Your task to perform on an android device: turn on sleep mode Image 0: 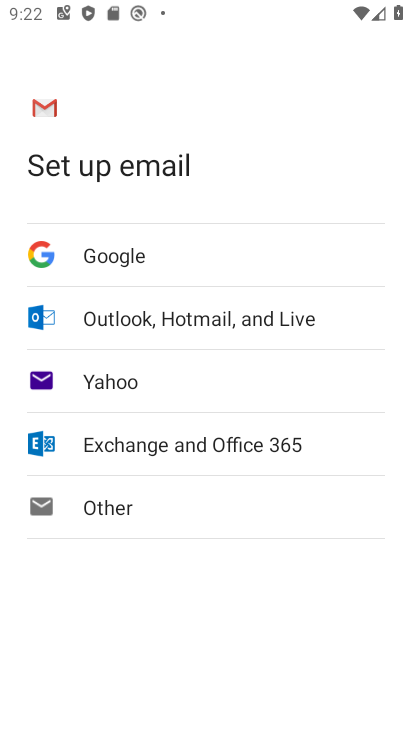
Step 0: press home button
Your task to perform on an android device: turn on sleep mode Image 1: 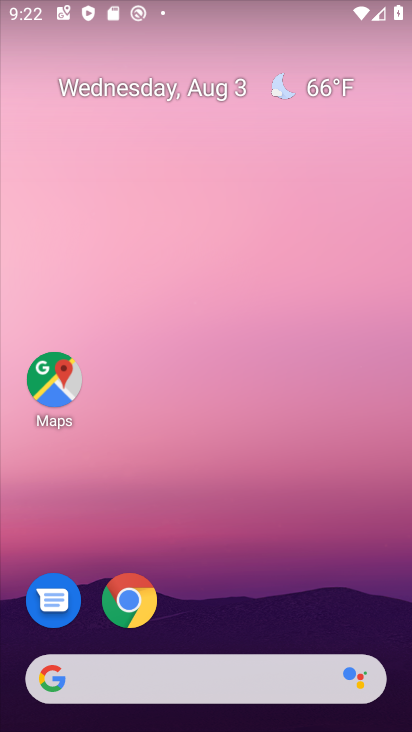
Step 1: drag from (173, 274) to (132, 0)
Your task to perform on an android device: turn on sleep mode Image 2: 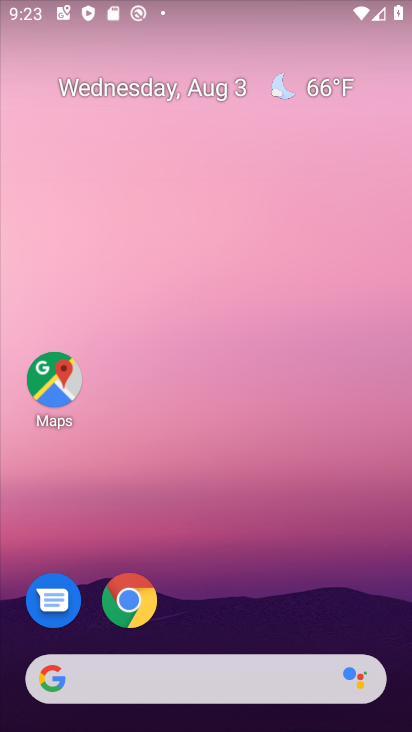
Step 2: drag from (220, 615) to (157, 0)
Your task to perform on an android device: turn on sleep mode Image 3: 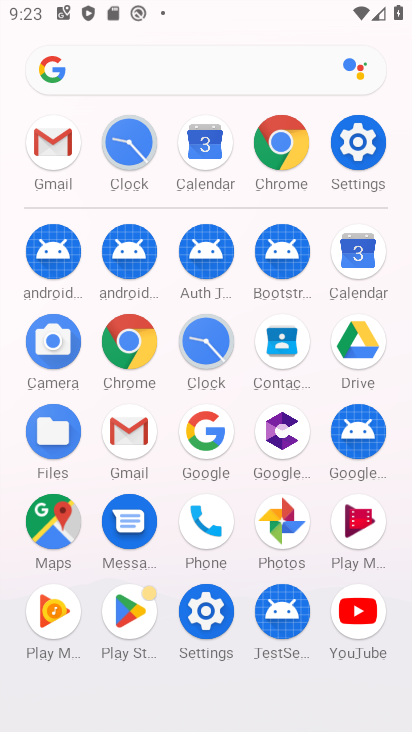
Step 3: click (221, 631)
Your task to perform on an android device: turn on sleep mode Image 4: 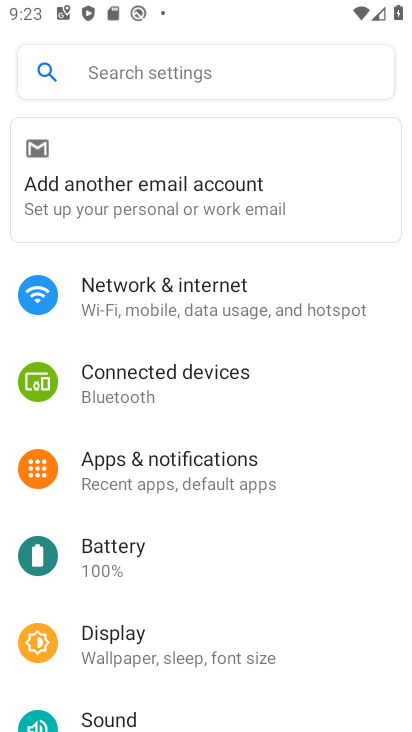
Step 4: click (225, 64)
Your task to perform on an android device: turn on sleep mode Image 5: 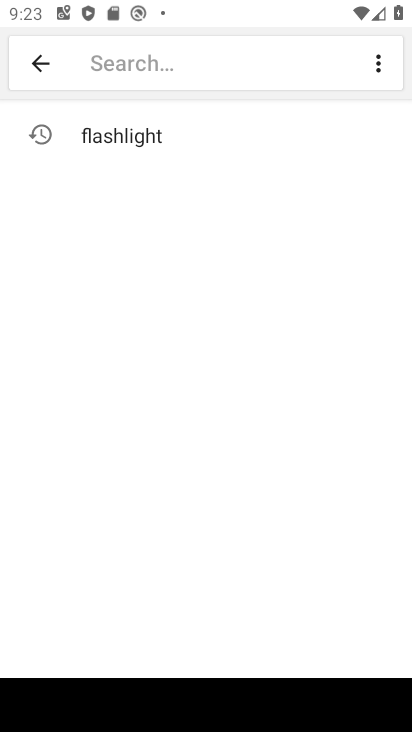
Step 5: type "sleep mode"
Your task to perform on an android device: turn on sleep mode Image 6: 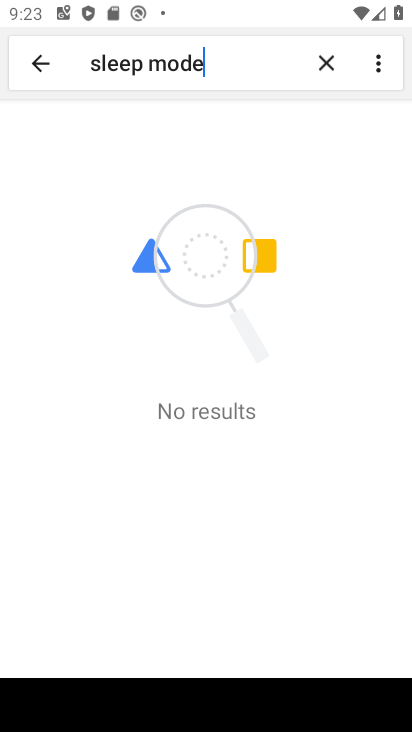
Step 6: click (204, 341)
Your task to perform on an android device: turn on sleep mode Image 7: 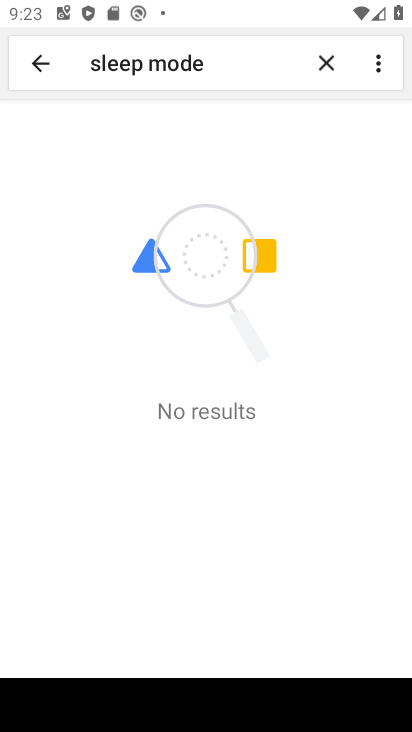
Step 7: task complete